Your task to perform on an android device: turn off data saver in the chrome app Image 0: 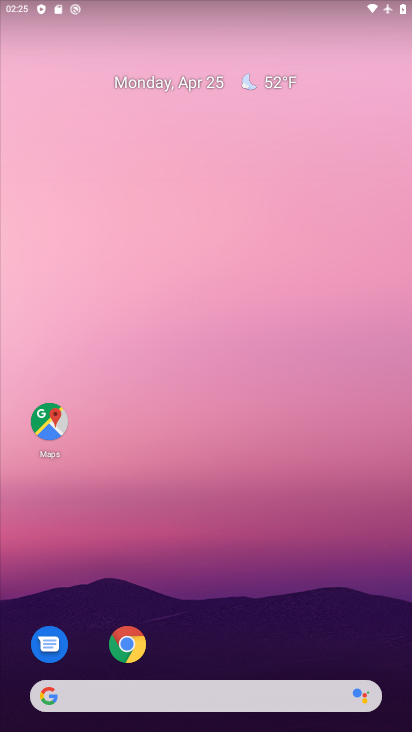
Step 0: click (139, 652)
Your task to perform on an android device: turn off data saver in the chrome app Image 1: 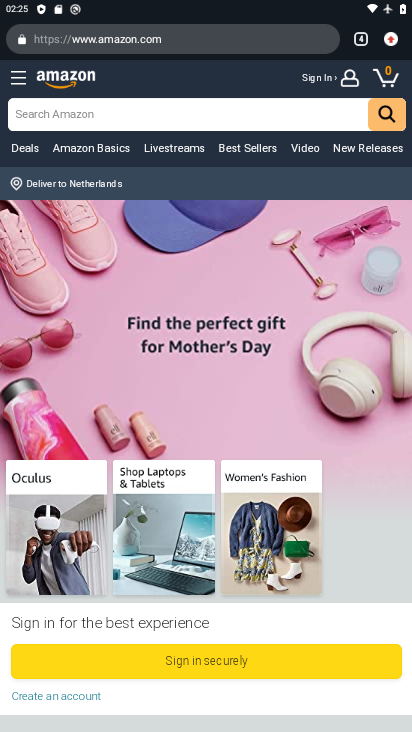
Step 1: click (400, 41)
Your task to perform on an android device: turn off data saver in the chrome app Image 2: 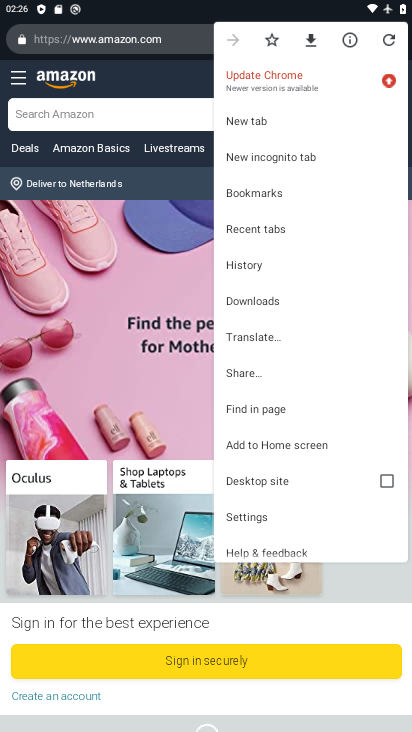
Step 2: click (269, 511)
Your task to perform on an android device: turn off data saver in the chrome app Image 3: 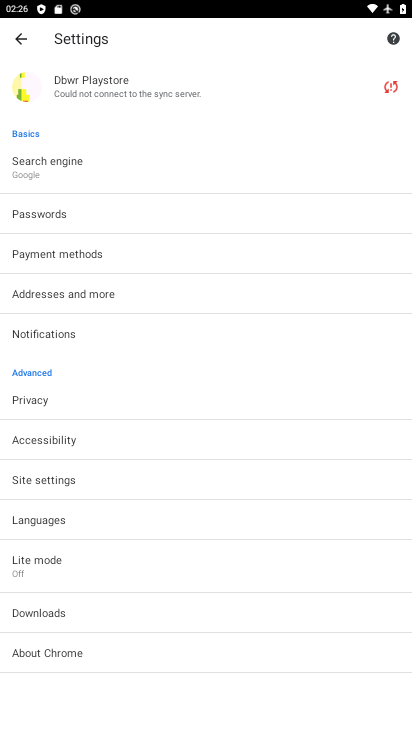
Step 3: click (112, 551)
Your task to perform on an android device: turn off data saver in the chrome app Image 4: 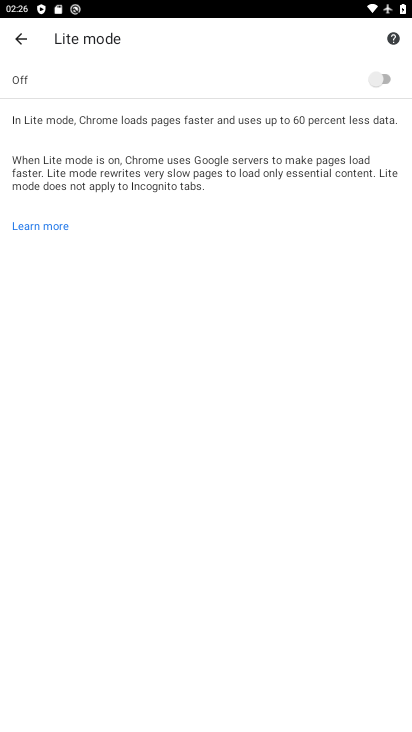
Step 4: click (369, 84)
Your task to perform on an android device: turn off data saver in the chrome app Image 5: 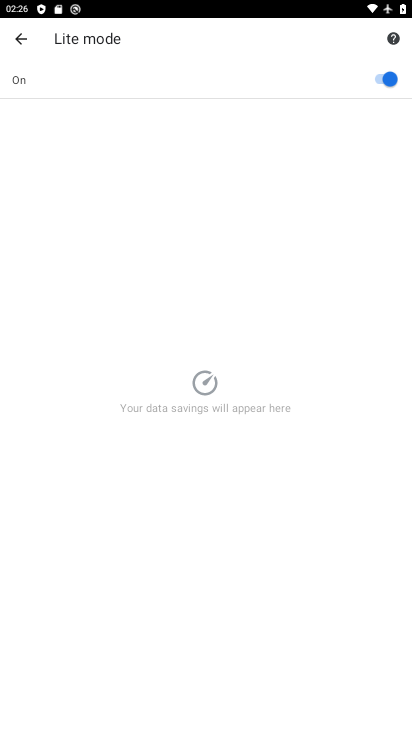
Step 5: task complete